Your task to perform on an android device: Open Google Image 0: 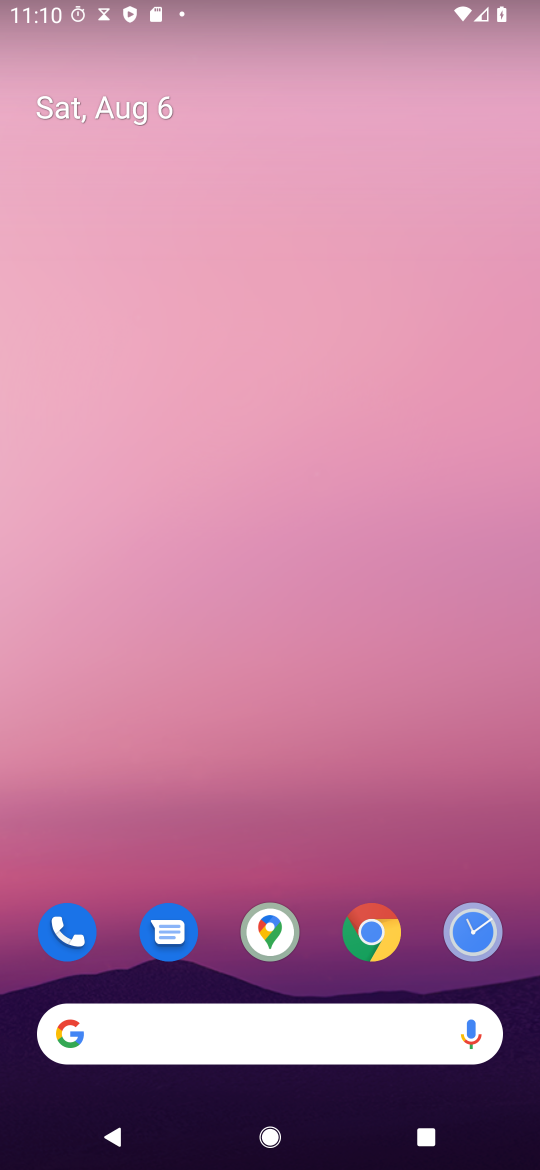
Step 0: drag from (305, 1030) to (399, 163)
Your task to perform on an android device: Open Google Image 1: 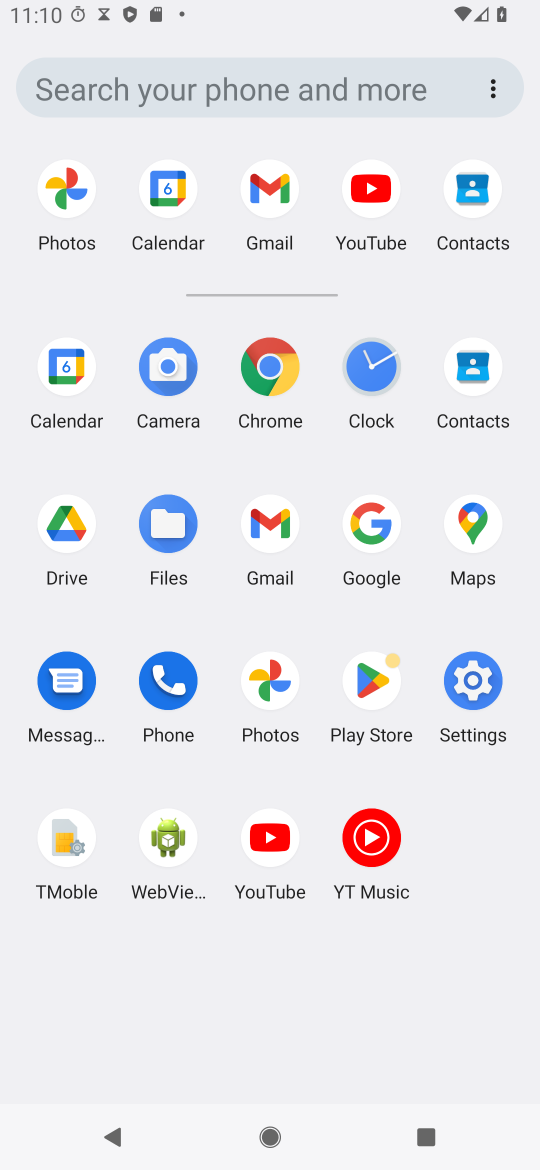
Step 1: click (369, 520)
Your task to perform on an android device: Open Google Image 2: 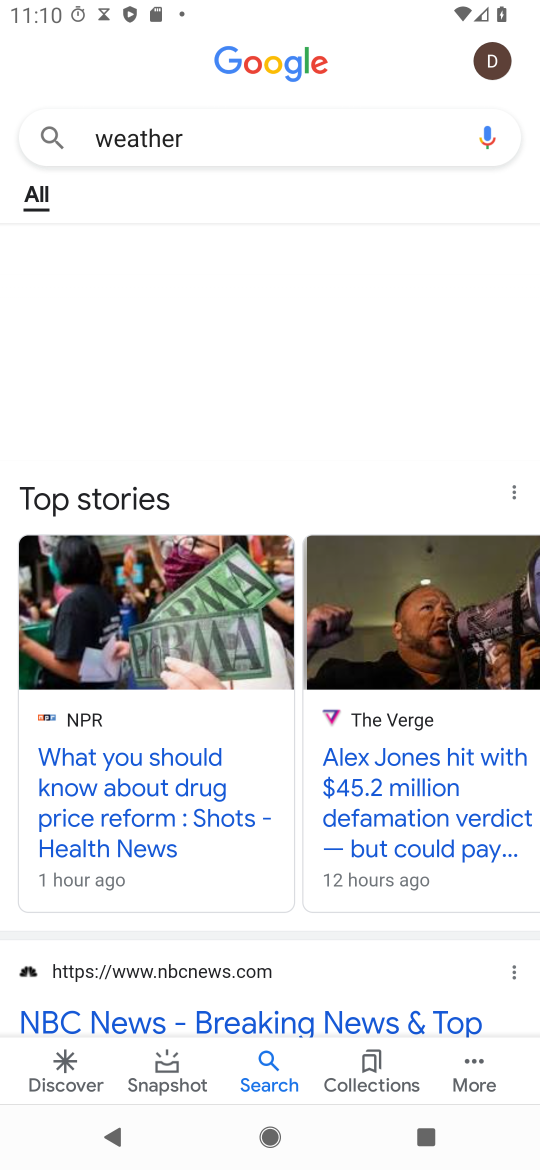
Step 2: task complete